Your task to perform on an android device: change the clock display to digital Image 0: 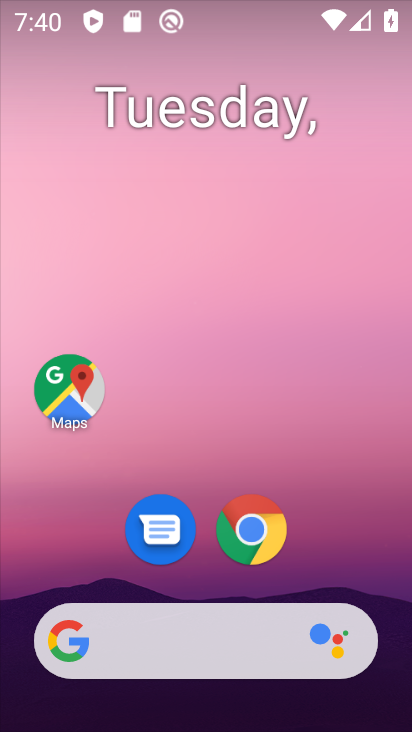
Step 0: click (283, 150)
Your task to perform on an android device: change the clock display to digital Image 1: 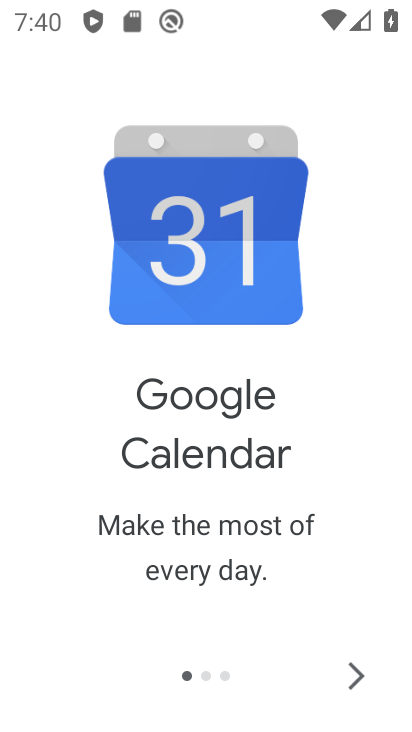
Step 1: press home button
Your task to perform on an android device: change the clock display to digital Image 2: 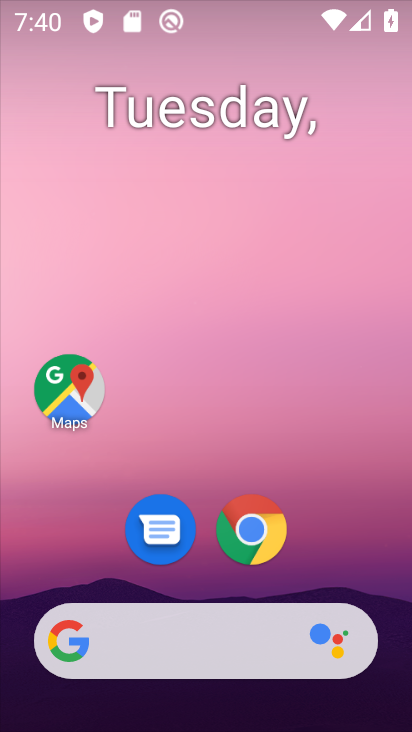
Step 2: drag from (276, 611) to (268, 109)
Your task to perform on an android device: change the clock display to digital Image 3: 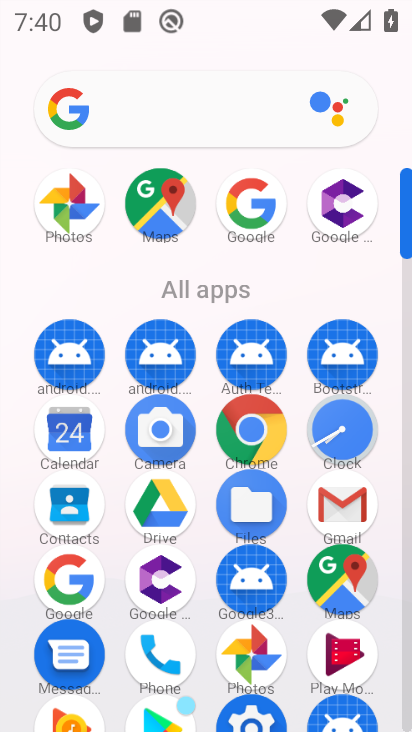
Step 3: click (355, 443)
Your task to perform on an android device: change the clock display to digital Image 4: 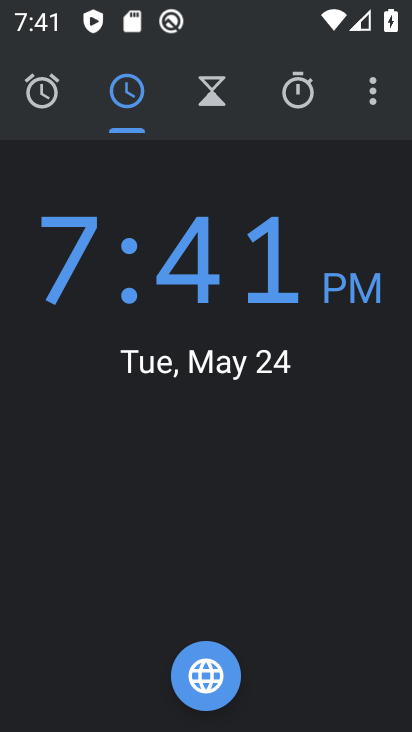
Step 4: click (368, 94)
Your task to perform on an android device: change the clock display to digital Image 5: 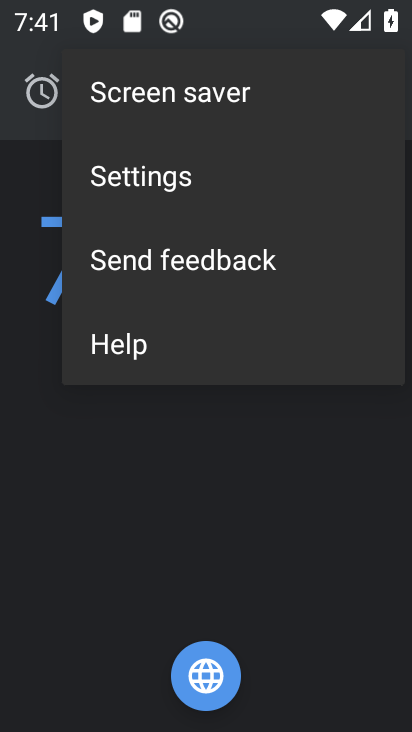
Step 5: click (243, 168)
Your task to perform on an android device: change the clock display to digital Image 6: 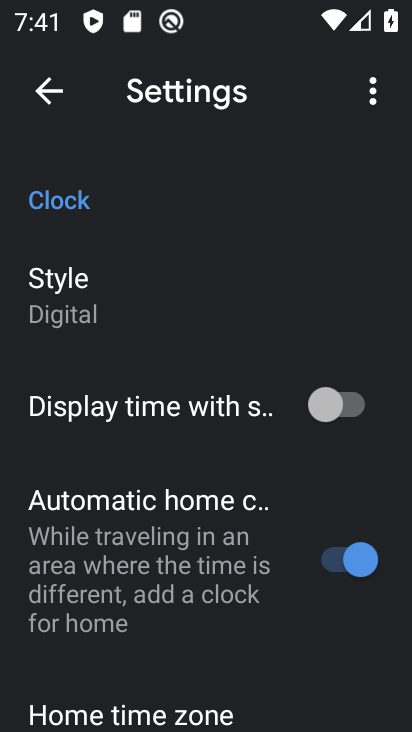
Step 6: task complete